Your task to perform on an android device: Open sound settings Image 0: 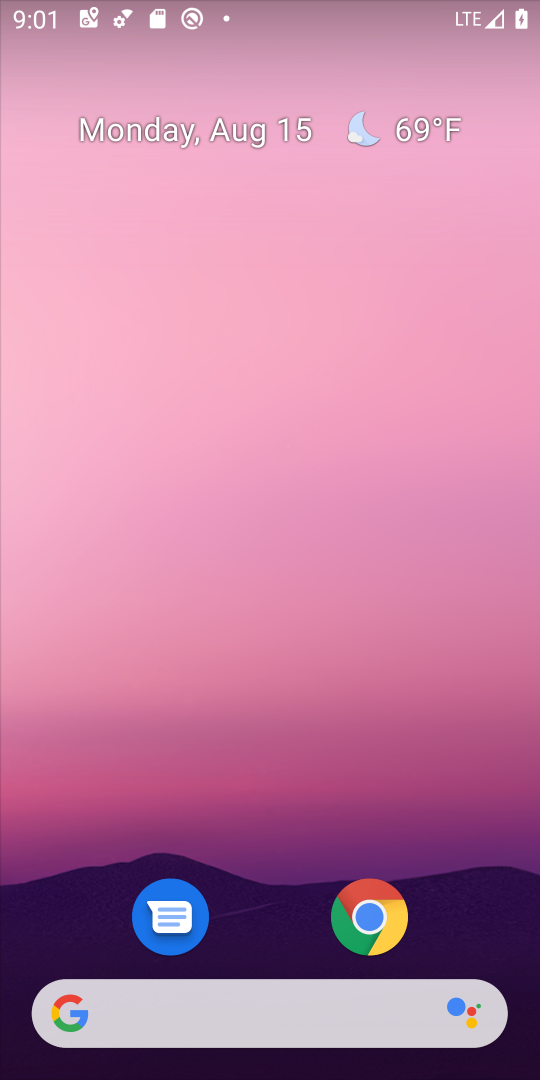
Step 0: drag from (346, 767) to (382, 0)
Your task to perform on an android device: Open sound settings Image 1: 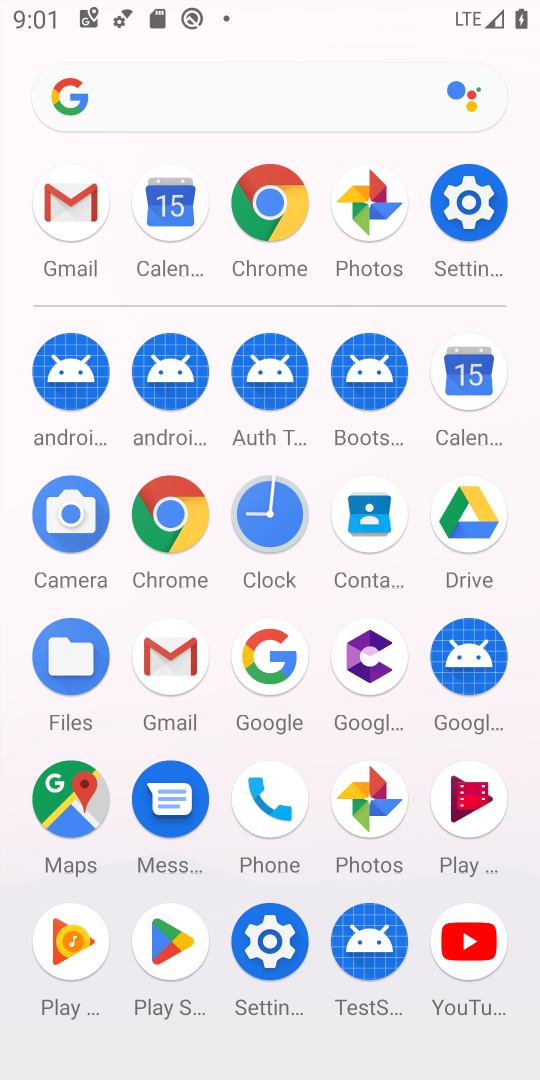
Step 1: click (457, 195)
Your task to perform on an android device: Open sound settings Image 2: 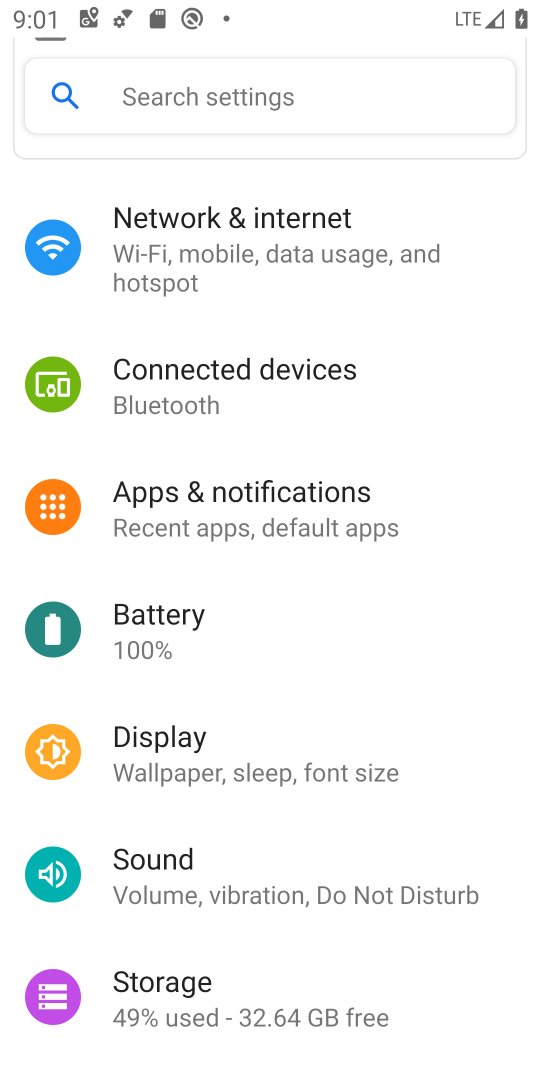
Step 2: click (251, 865)
Your task to perform on an android device: Open sound settings Image 3: 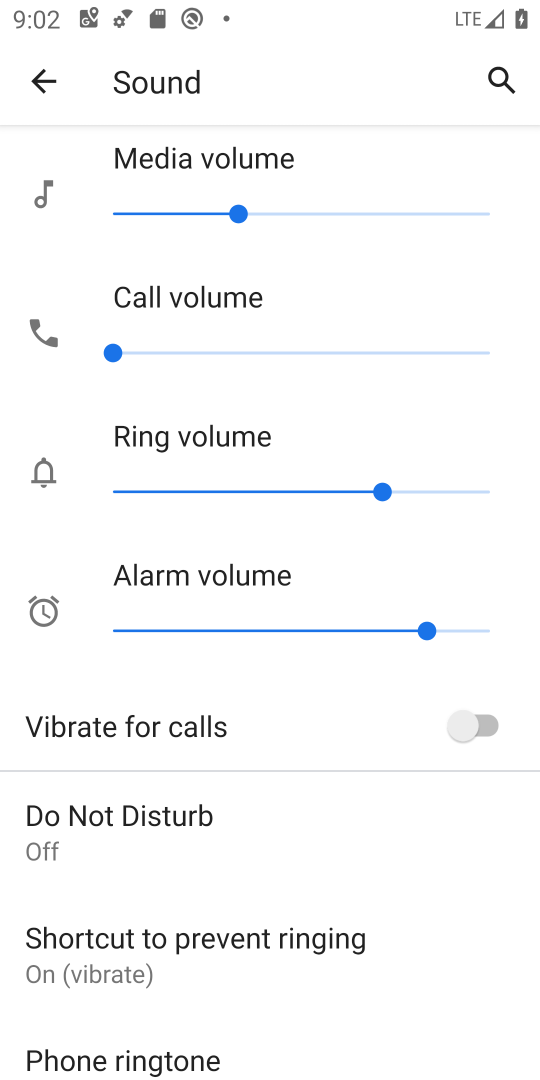
Step 3: task complete